Your task to perform on an android device: Go to Google Image 0: 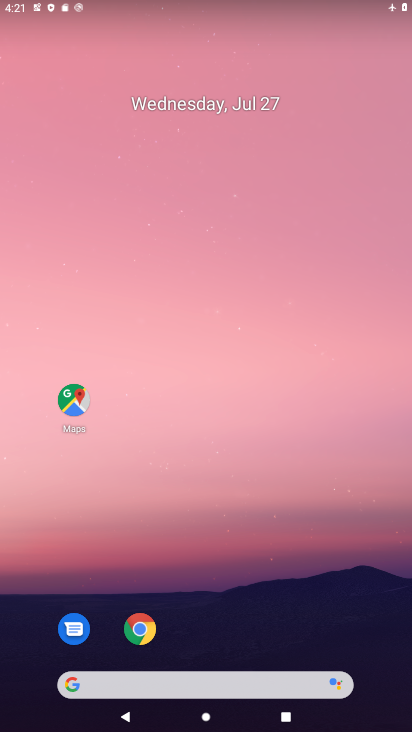
Step 0: click (148, 678)
Your task to perform on an android device: Go to Google Image 1: 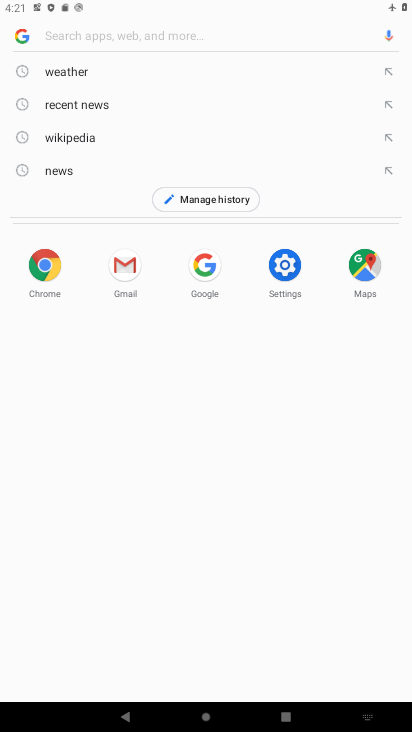
Step 1: task complete